Your task to perform on an android device: turn off wifi Image 0: 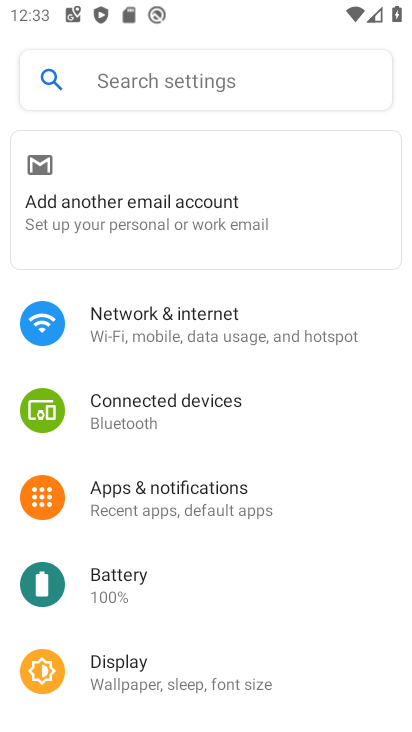
Step 0: click (154, 358)
Your task to perform on an android device: turn off wifi Image 1: 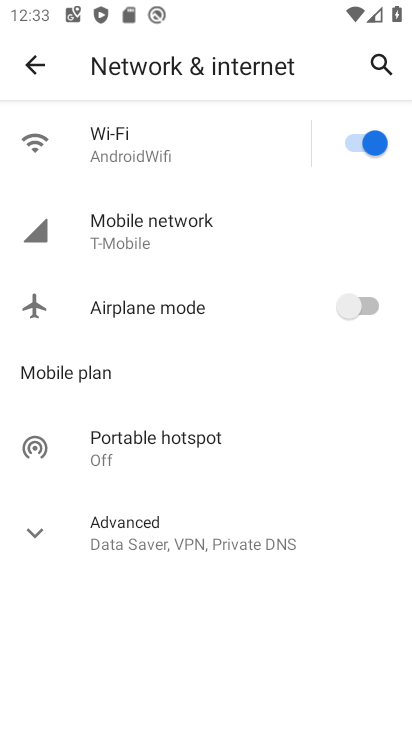
Step 1: click (369, 135)
Your task to perform on an android device: turn off wifi Image 2: 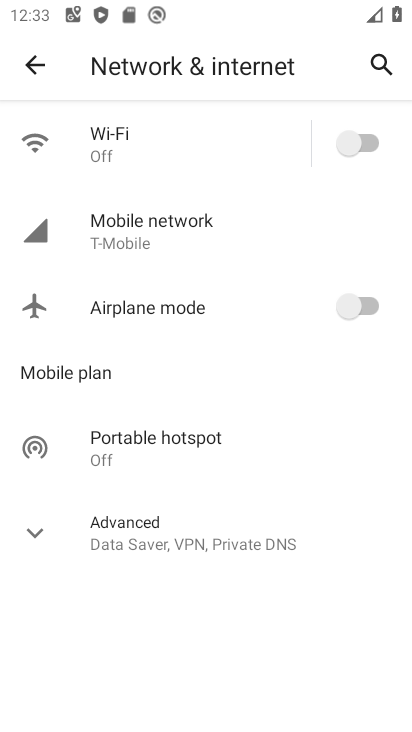
Step 2: task complete